Your task to perform on an android device: choose inbox layout in the gmail app Image 0: 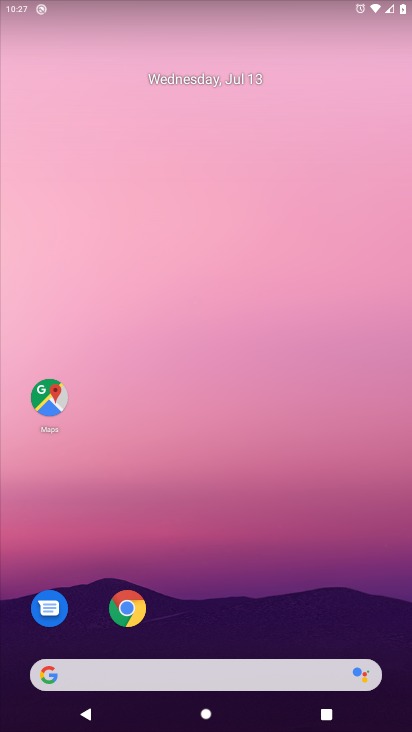
Step 0: drag from (47, 685) to (268, 102)
Your task to perform on an android device: choose inbox layout in the gmail app Image 1: 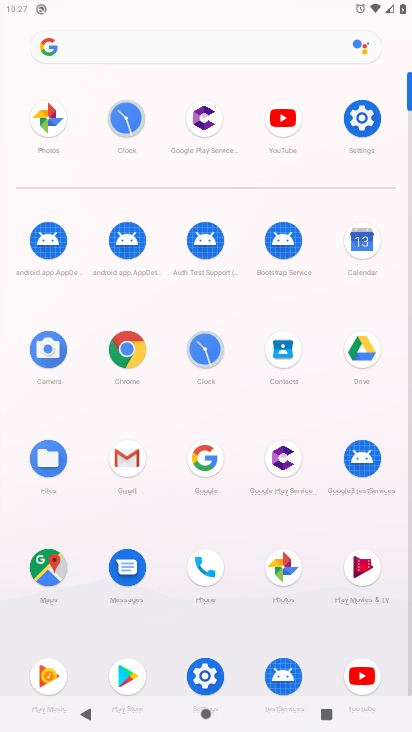
Step 1: click (122, 454)
Your task to perform on an android device: choose inbox layout in the gmail app Image 2: 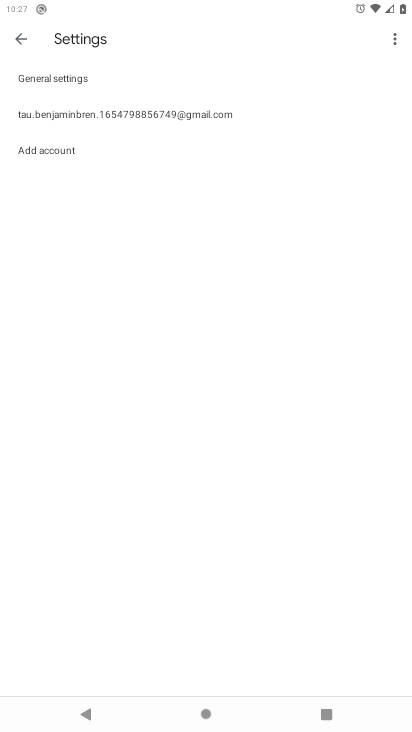
Step 2: click (125, 110)
Your task to perform on an android device: choose inbox layout in the gmail app Image 3: 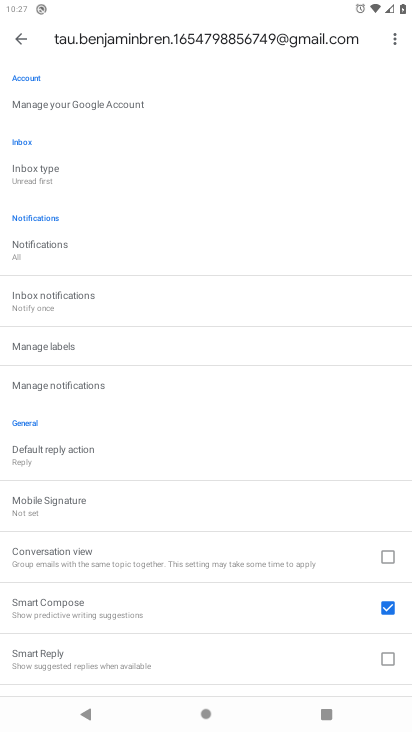
Step 3: click (63, 175)
Your task to perform on an android device: choose inbox layout in the gmail app Image 4: 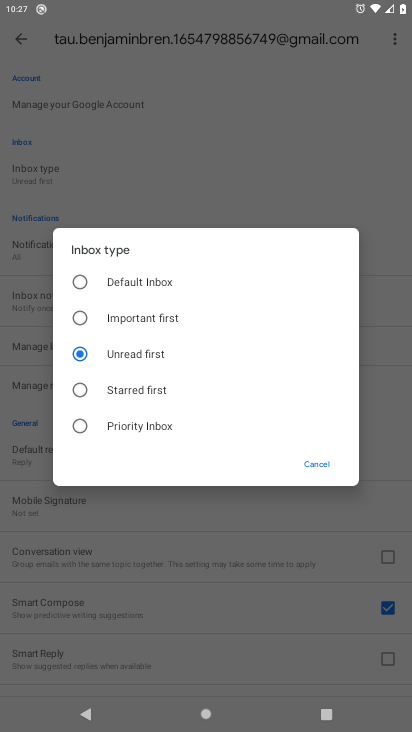
Step 4: click (205, 542)
Your task to perform on an android device: choose inbox layout in the gmail app Image 5: 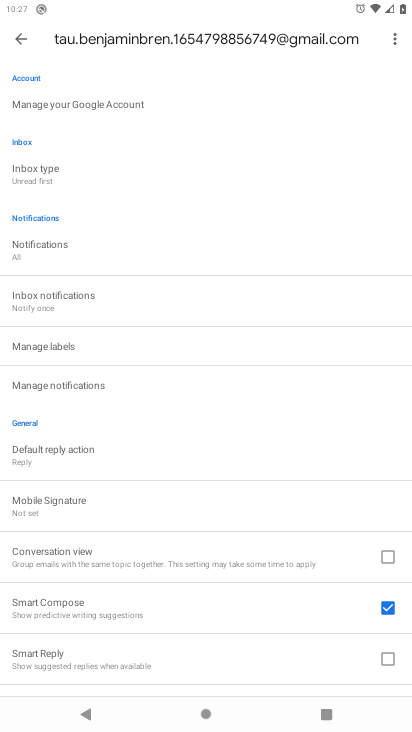
Step 5: task complete